Your task to perform on an android device: Go to notification settings Image 0: 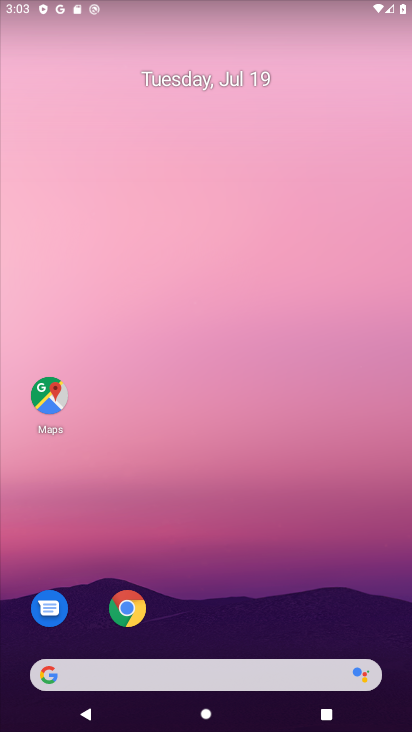
Step 0: drag from (331, 616) to (305, 173)
Your task to perform on an android device: Go to notification settings Image 1: 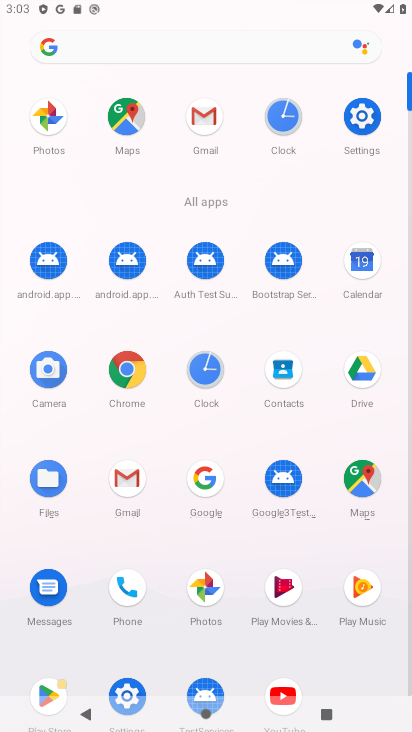
Step 1: click (359, 111)
Your task to perform on an android device: Go to notification settings Image 2: 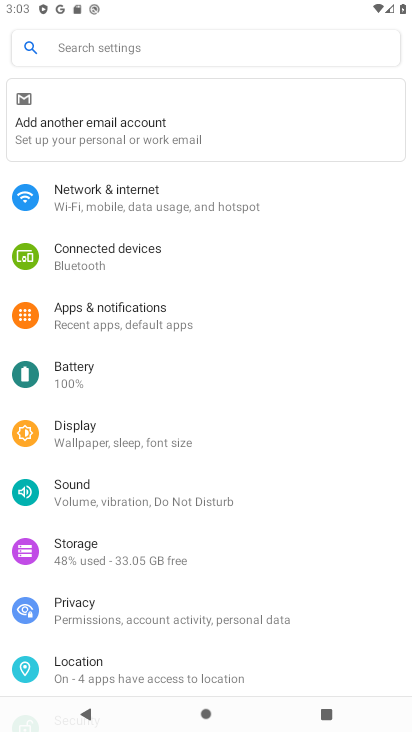
Step 2: click (188, 302)
Your task to perform on an android device: Go to notification settings Image 3: 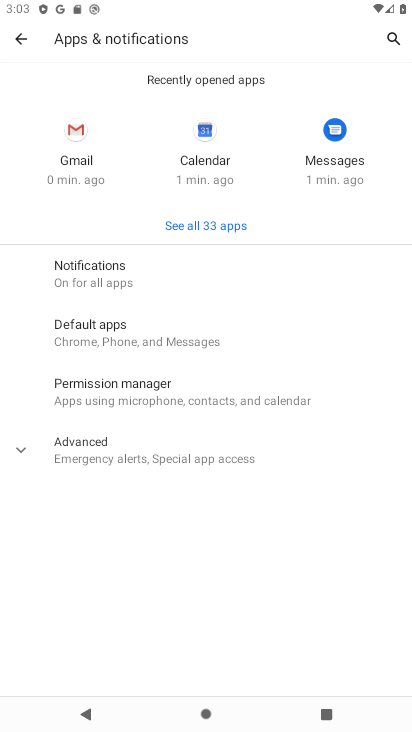
Step 3: click (195, 272)
Your task to perform on an android device: Go to notification settings Image 4: 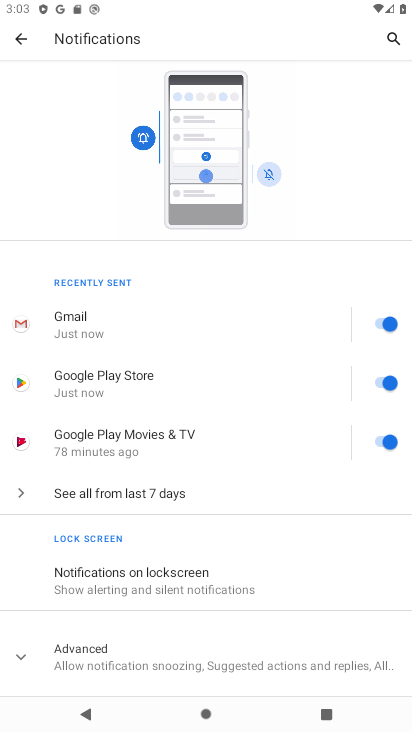
Step 4: task complete